Your task to perform on an android device: open app "Cash App" (install if not already installed), go to login, and select forgot password Image 0: 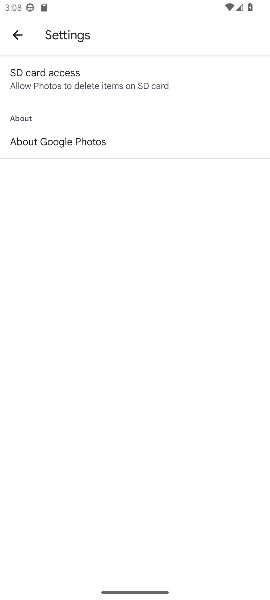
Step 0: press home button
Your task to perform on an android device: open app "Cash App" (install if not already installed), go to login, and select forgot password Image 1: 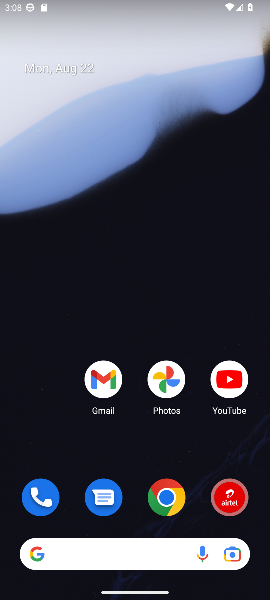
Step 1: drag from (132, 471) to (131, 89)
Your task to perform on an android device: open app "Cash App" (install if not already installed), go to login, and select forgot password Image 2: 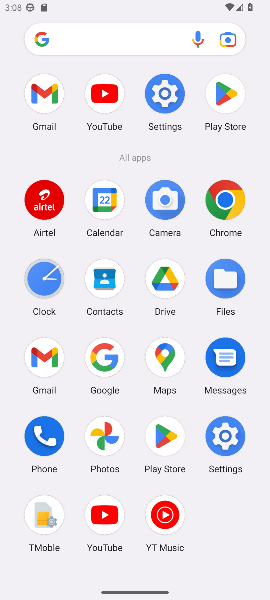
Step 2: click (160, 439)
Your task to perform on an android device: open app "Cash App" (install if not already installed), go to login, and select forgot password Image 3: 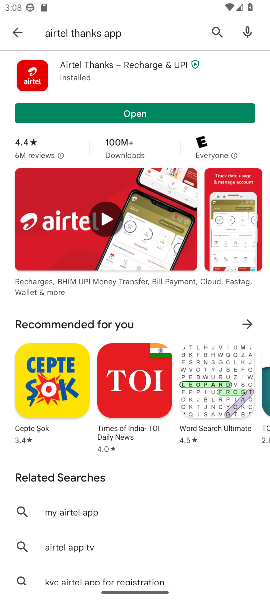
Step 3: click (17, 34)
Your task to perform on an android device: open app "Cash App" (install if not already installed), go to login, and select forgot password Image 4: 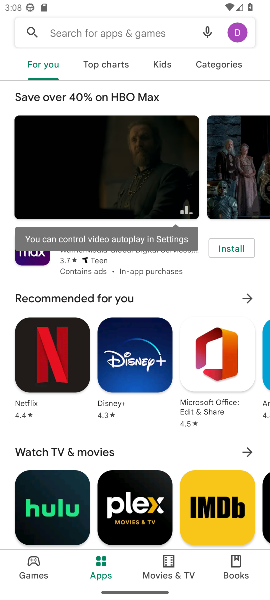
Step 4: click (128, 35)
Your task to perform on an android device: open app "Cash App" (install if not already installed), go to login, and select forgot password Image 5: 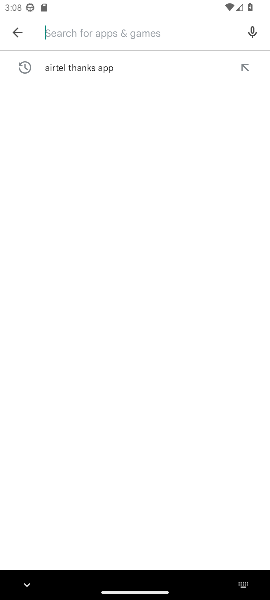
Step 5: type "Cash App"
Your task to perform on an android device: open app "Cash App" (install if not already installed), go to login, and select forgot password Image 6: 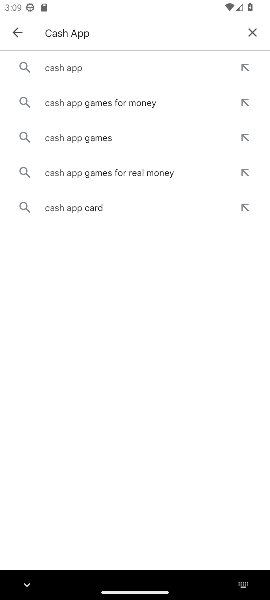
Step 6: click (63, 74)
Your task to perform on an android device: open app "Cash App" (install if not already installed), go to login, and select forgot password Image 7: 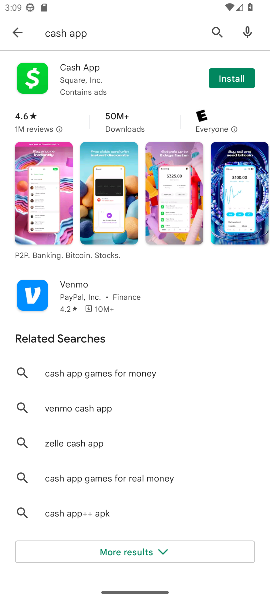
Step 7: click (245, 73)
Your task to perform on an android device: open app "Cash App" (install if not already installed), go to login, and select forgot password Image 8: 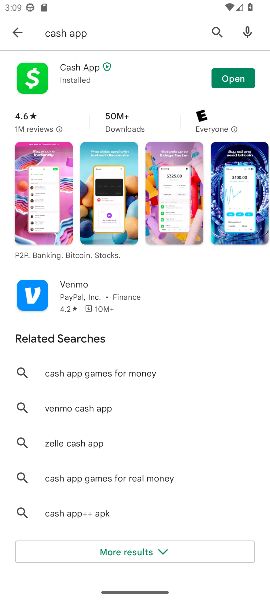
Step 8: click (226, 77)
Your task to perform on an android device: open app "Cash App" (install if not already installed), go to login, and select forgot password Image 9: 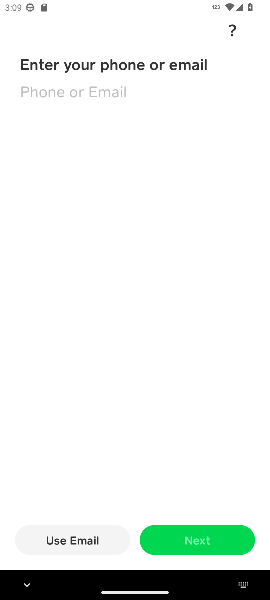
Step 9: task complete